Your task to perform on an android device: Open my contact list Image 0: 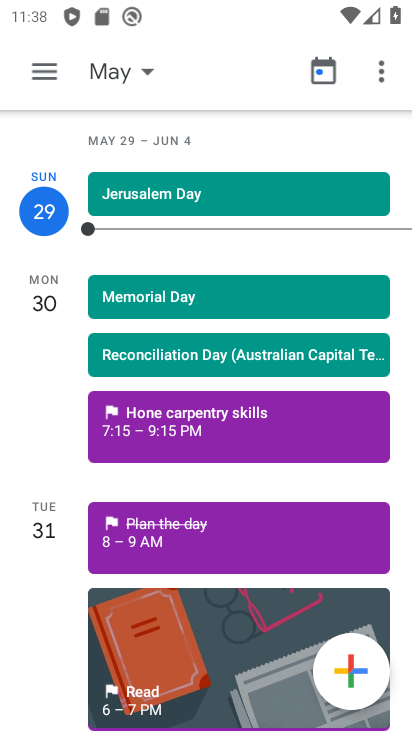
Step 0: press home button
Your task to perform on an android device: Open my contact list Image 1: 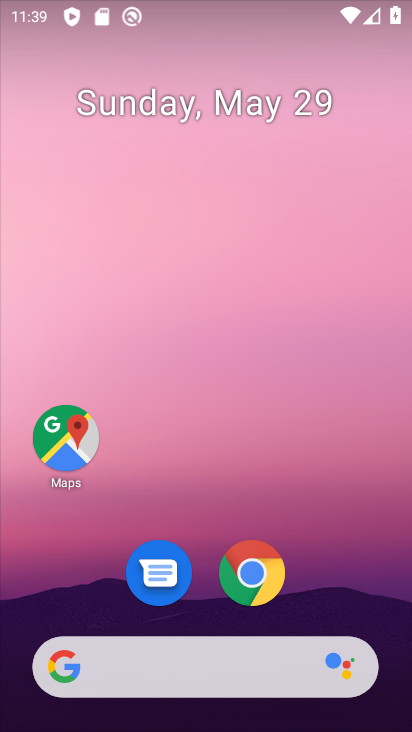
Step 1: drag from (202, 671) to (82, 317)
Your task to perform on an android device: Open my contact list Image 2: 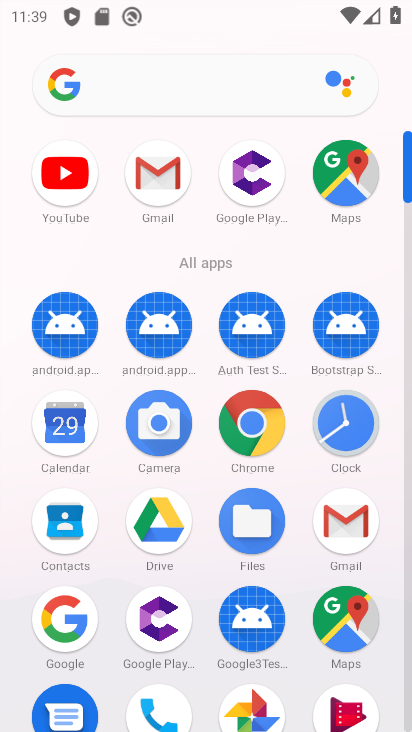
Step 2: click (78, 525)
Your task to perform on an android device: Open my contact list Image 3: 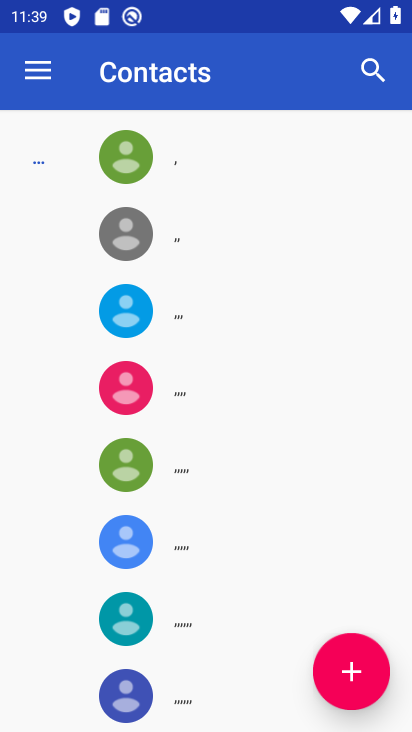
Step 3: task complete